Your task to perform on an android device: turn on notifications settings in the gmail app Image 0: 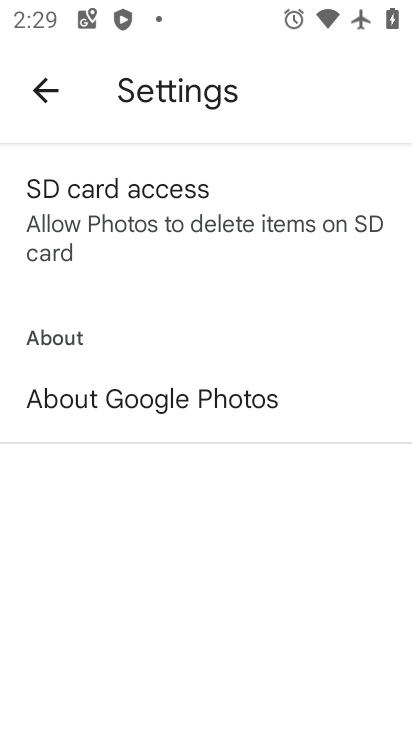
Step 0: press home button
Your task to perform on an android device: turn on notifications settings in the gmail app Image 1: 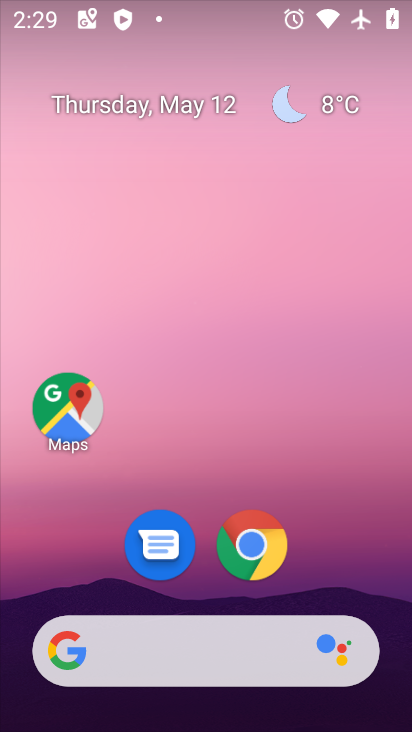
Step 1: drag from (395, 630) to (264, 216)
Your task to perform on an android device: turn on notifications settings in the gmail app Image 2: 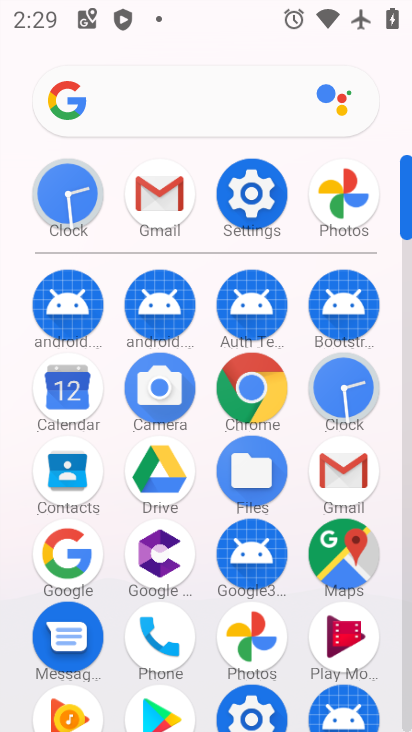
Step 2: click (408, 697)
Your task to perform on an android device: turn on notifications settings in the gmail app Image 3: 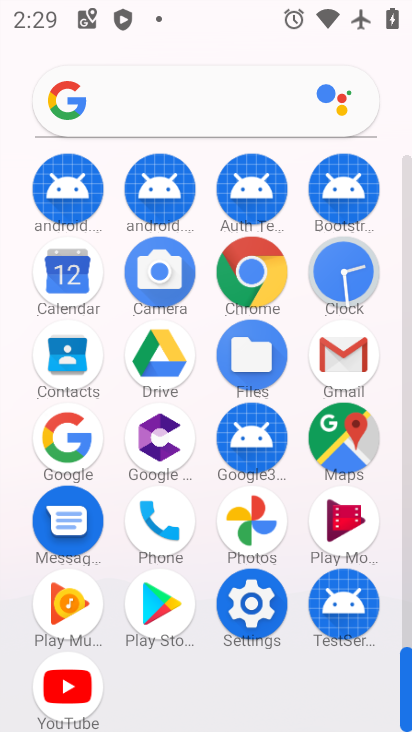
Step 3: click (340, 355)
Your task to perform on an android device: turn on notifications settings in the gmail app Image 4: 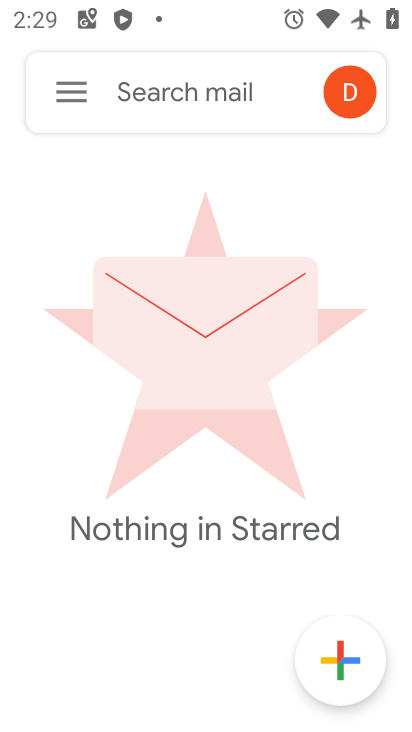
Step 4: click (70, 86)
Your task to perform on an android device: turn on notifications settings in the gmail app Image 5: 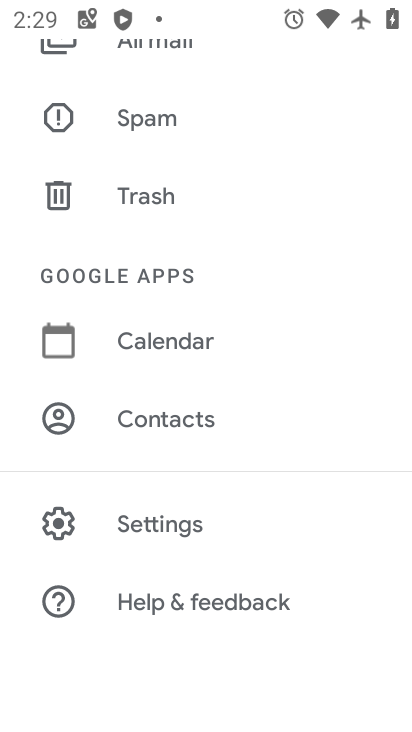
Step 5: click (156, 514)
Your task to perform on an android device: turn on notifications settings in the gmail app Image 6: 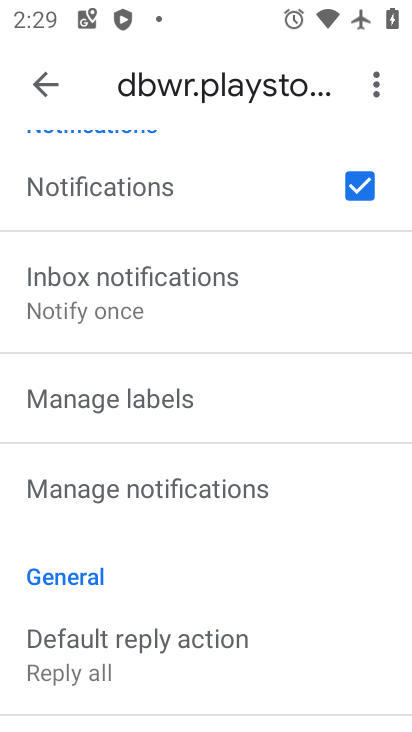
Step 6: click (110, 476)
Your task to perform on an android device: turn on notifications settings in the gmail app Image 7: 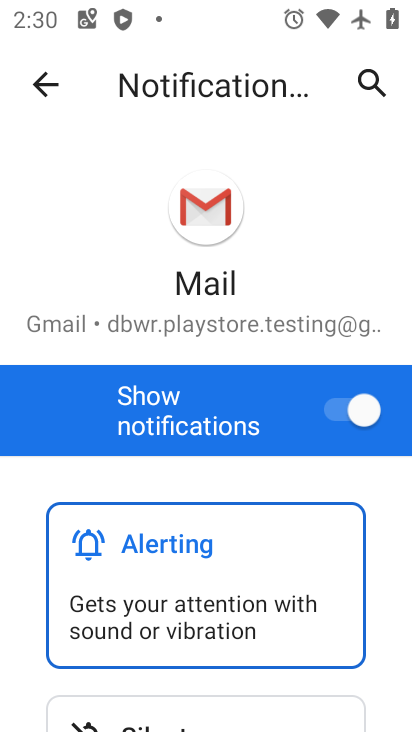
Step 7: task complete